Your task to perform on an android device: change text size in settings app Image 0: 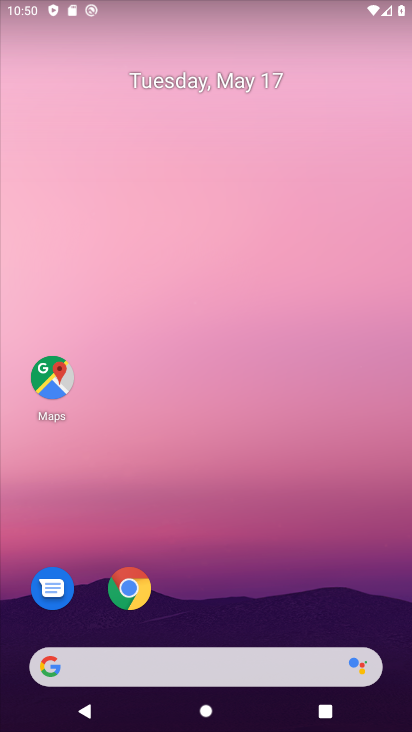
Step 0: drag from (304, 599) to (322, 132)
Your task to perform on an android device: change text size in settings app Image 1: 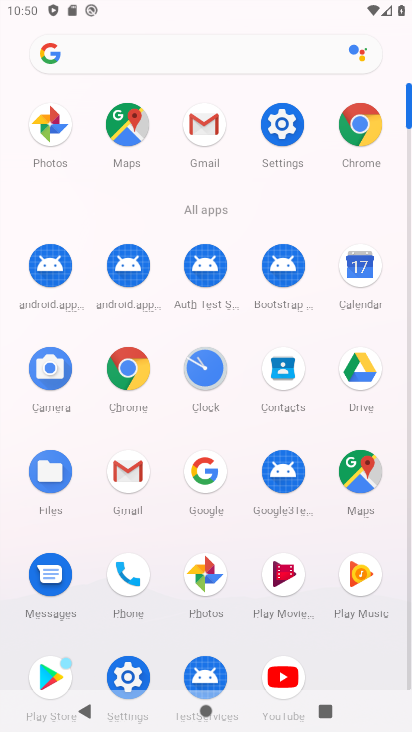
Step 1: click (282, 132)
Your task to perform on an android device: change text size in settings app Image 2: 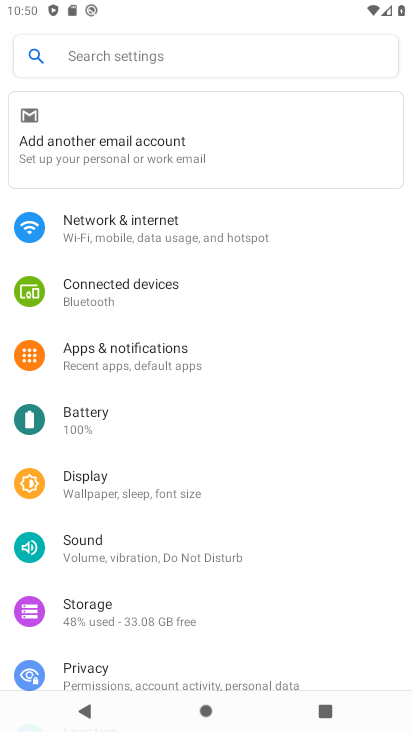
Step 2: click (144, 509)
Your task to perform on an android device: change text size in settings app Image 3: 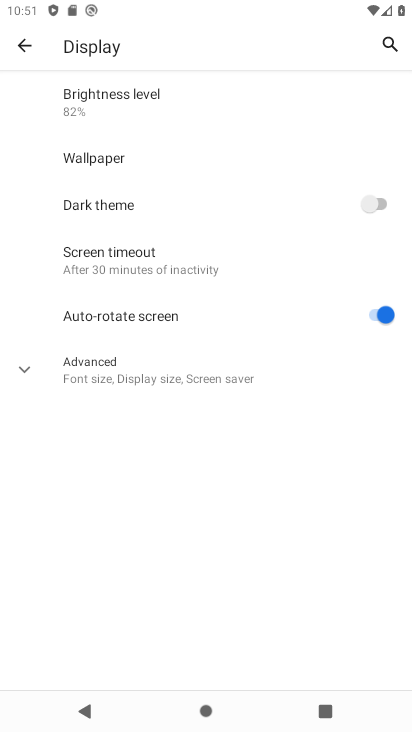
Step 3: click (30, 372)
Your task to perform on an android device: change text size in settings app Image 4: 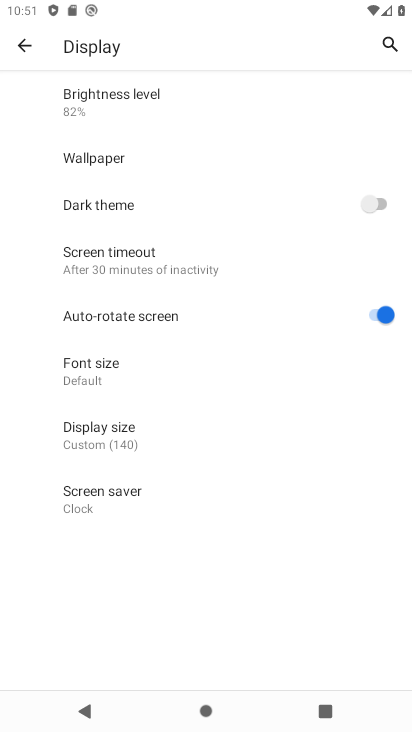
Step 4: click (173, 377)
Your task to perform on an android device: change text size in settings app Image 5: 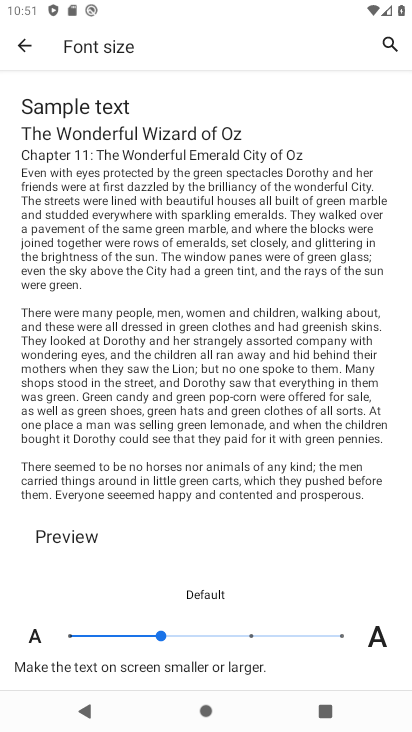
Step 5: click (249, 636)
Your task to perform on an android device: change text size in settings app Image 6: 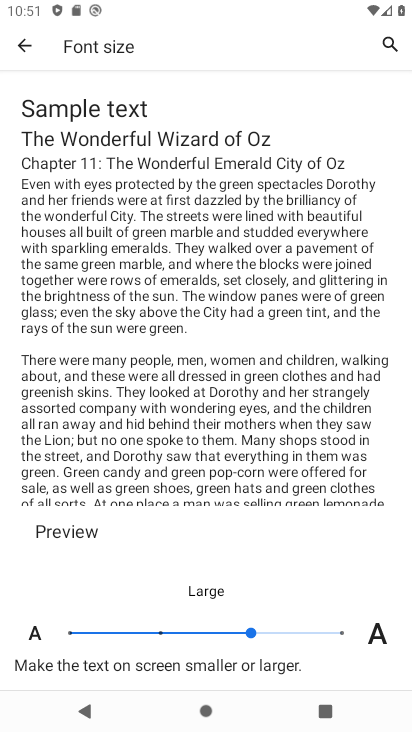
Step 6: task complete